Your task to perform on an android device: Go to sound settings Image 0: 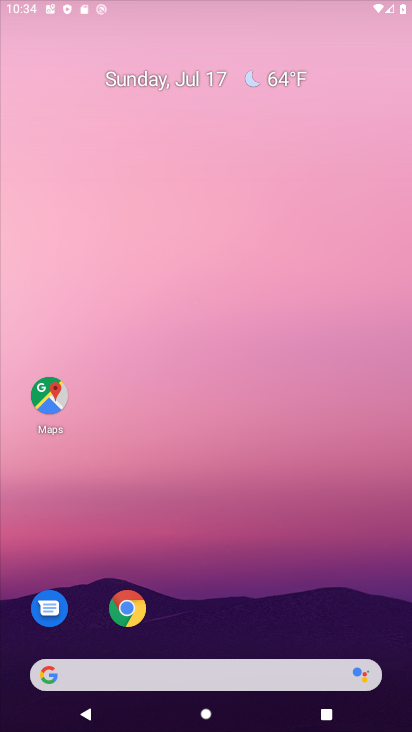
Step 0: drag from (94, 634) to (236, 296)
Your task to perform on an android device: Go to sound settings Image 1: 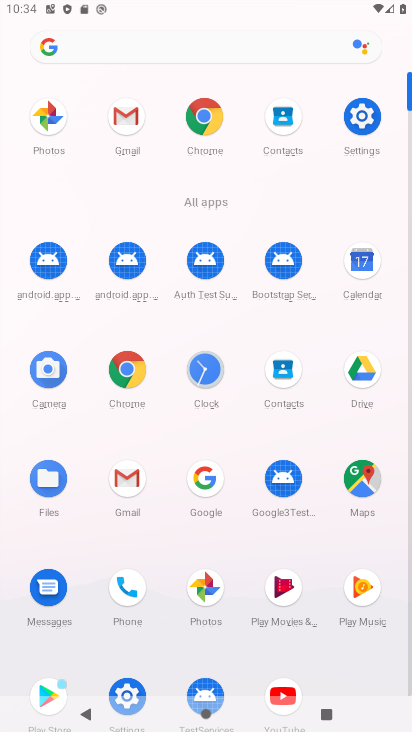
Step 1: click (125, 700)
Your task to perform on an android device: Go to sound settings Image 2: 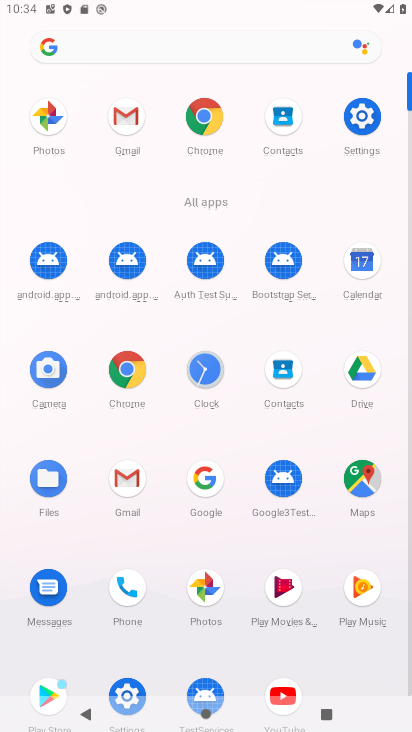
Step 2: click (130, 690)
Your task to perform on an android device: Go to sound settings Image 3: 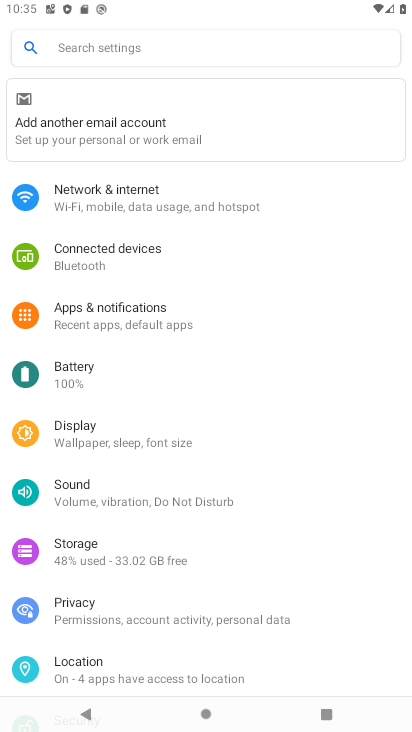
Step 3: click (82, 479)
Your task to perform on an android device: Go to sound settings Image 4: 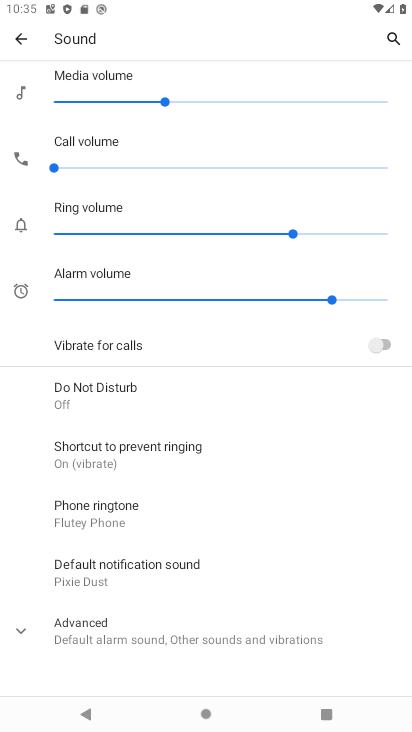
Step 4: task complete